Your task to perform on an android device: Do I have any events tomorrow? Image 0: 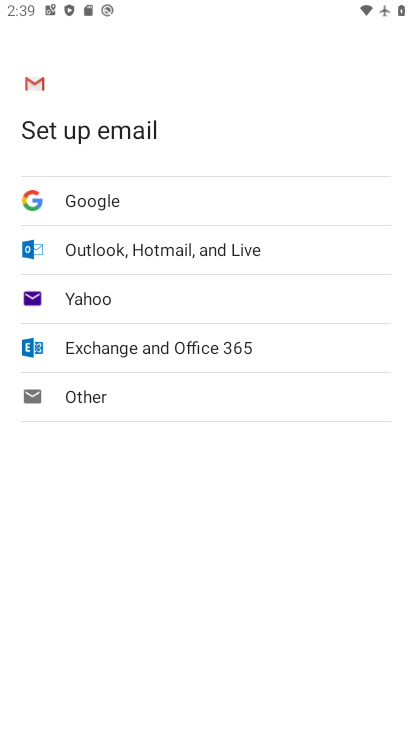
Step 0: press home button
Your task to perform on an android device: Do I have any events tomorrow? Image 1: 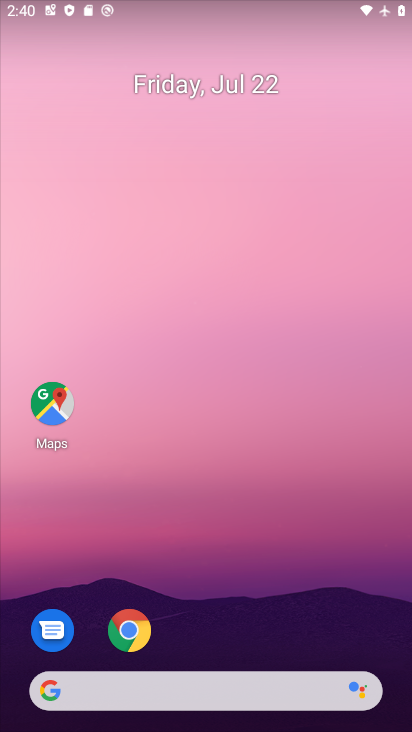
Step 1: drag from (207, 672) to (197, 67)
Your task to perform on an android device: Do I have any events tomorrow? Image 2: 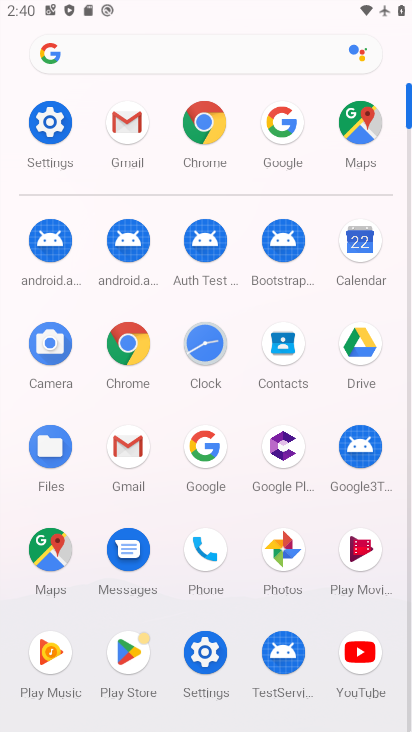
Step 2: click (349, 252)
Your task to perform on an android device: Do I have any events tomorrow? Image 3: 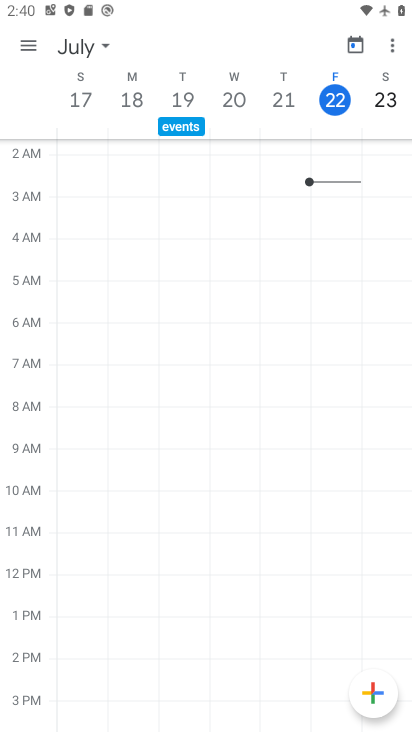
Step 3: click (388, 107)
Your task to perform on an android device: Do I have any events tomorrow? Image 4: 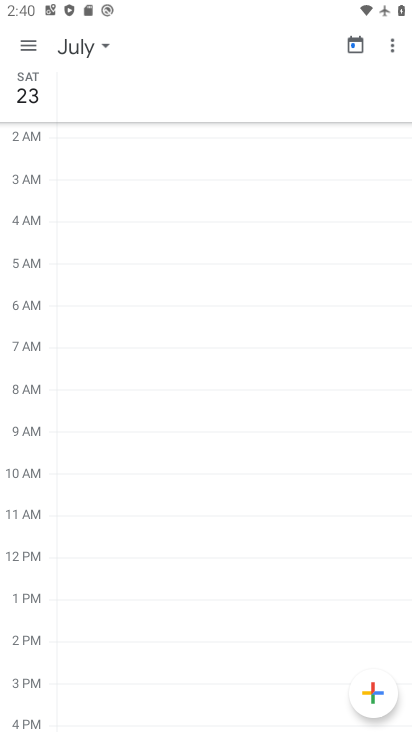
Step 4: task complete